Your task to perform on an android device: allow notifications from all sites in the chrome app Image 0: 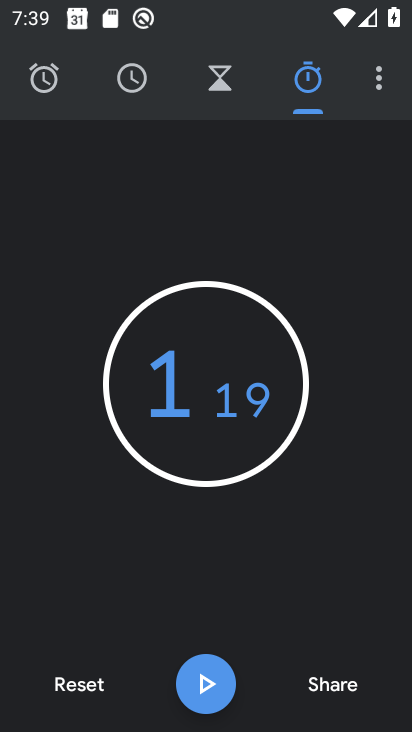
Step 0: press home button
Your task to perform on an android device: allow notifications from all sites in the chrome app Image 1: 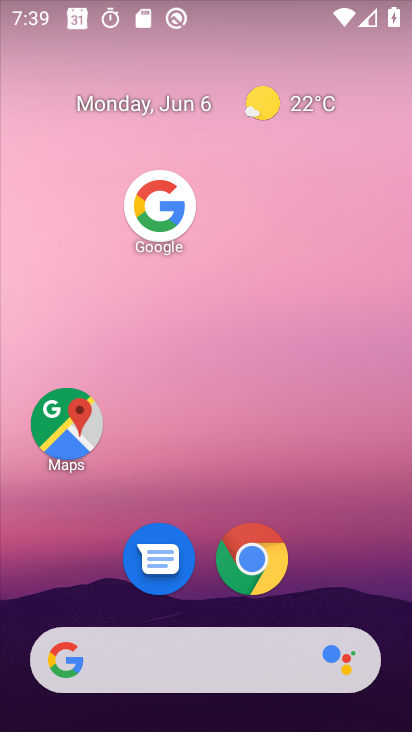
Step 1: drag from (222, 599) to (212, 234)
Your task to perform on an android device: allow notifications from all sites in the chrome app Image 2: 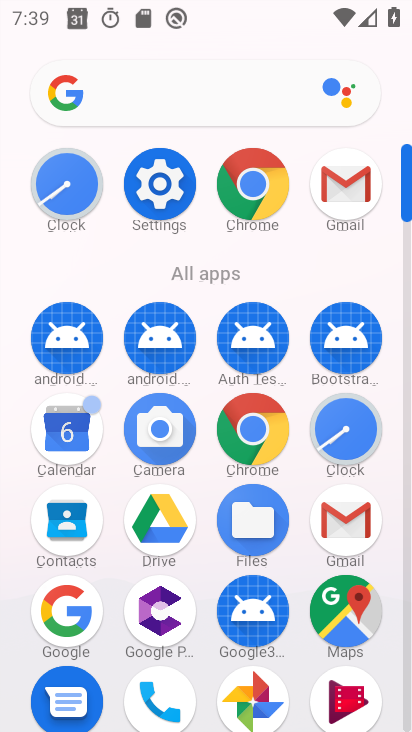
Step 2: click (247, 179)
Your task to perform on an android device: allow notifications from all sites in the chrome app Image 3: 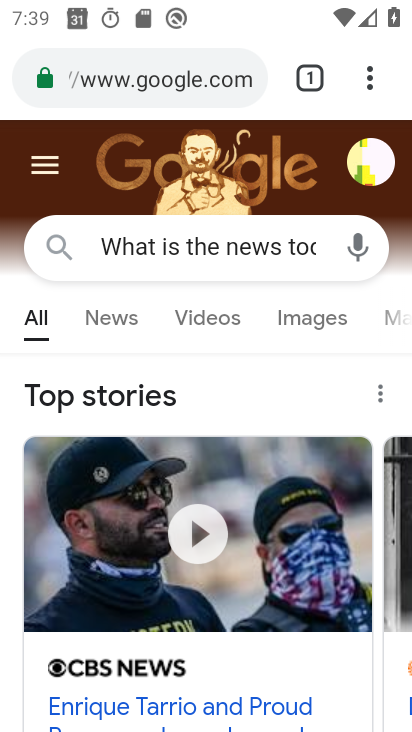
Step 3: click (369, 74)
Your task to perform on an android device: allow notifications from all sites in the chrome app Image 4: 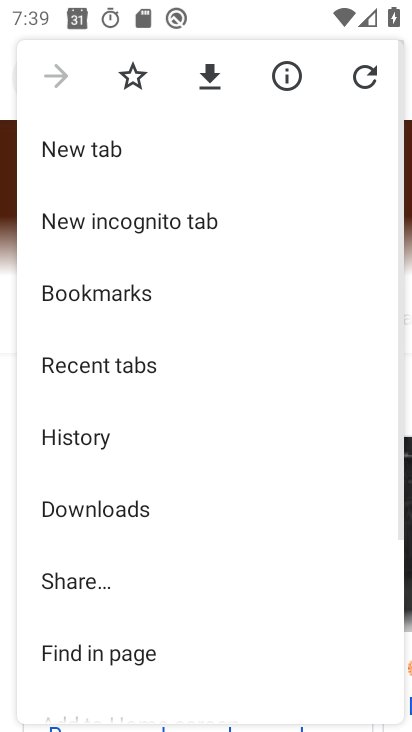
Step 4: drag from (208, 586) to (268, 272)
Your task to perform on an android device: allow notifications from all sites in the chrome app Image 5: 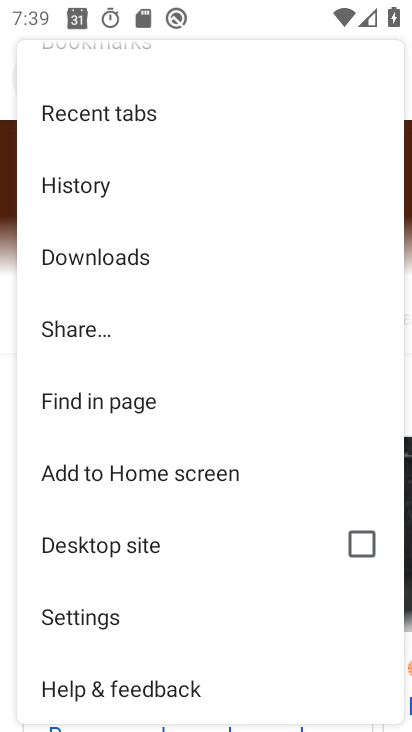
Step 5: click (84, 625)
Your task to perform on an android device: allow notifications from all sites in the chrome app Image 6: 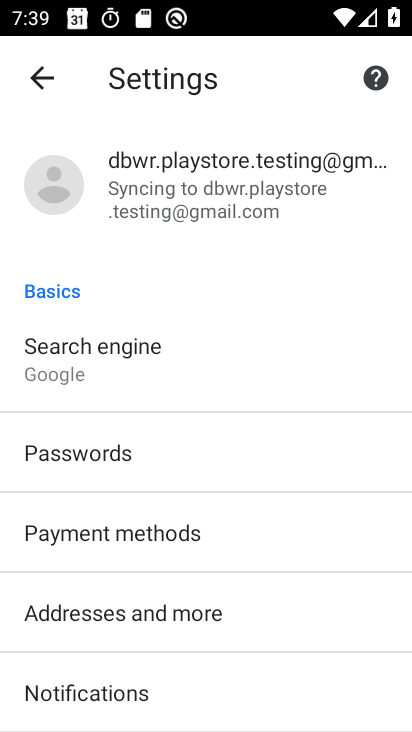
Step 6: click (67, 707)
Your task to perform on an android device: allow notifications from all sites in the chrome app Image 7: 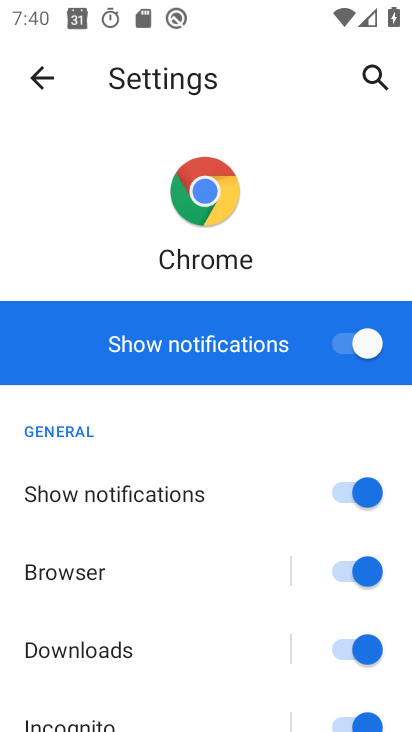
Step 7: task complete